Your task to perform on an android device: clear history in the chrome app Image 0: 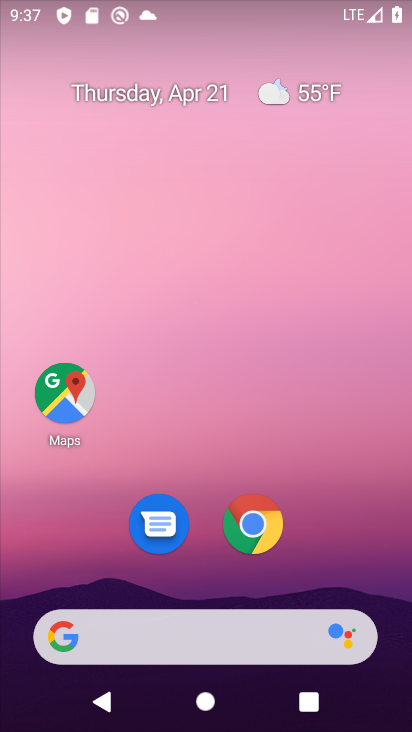
Step 0: click (255, 529)
Your task to perform on an android device: clear history in the chrome app Image 1: 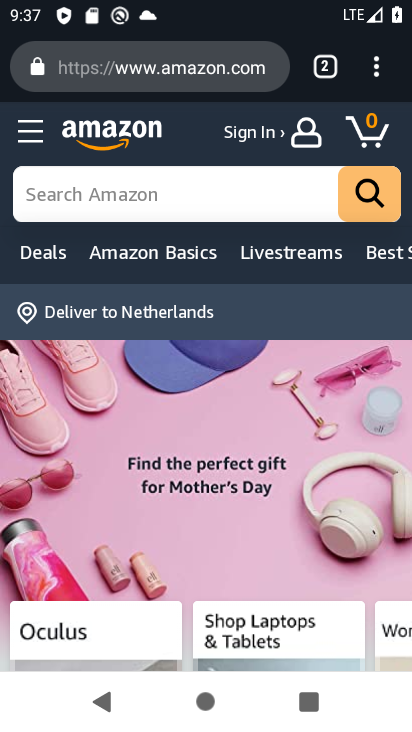
Step 1: click (372, 69)
Your task to perform on an android device: clear history in the chrome app Image 2: 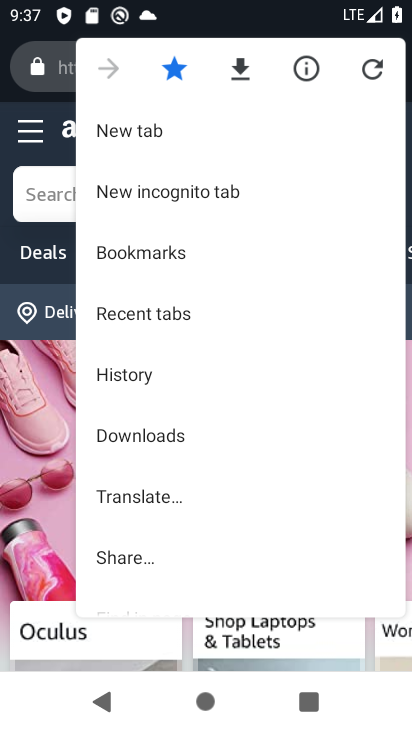
Step 2: click (176, 373)
Your task to perform on an android device: clear history in the chrome app Image 3: 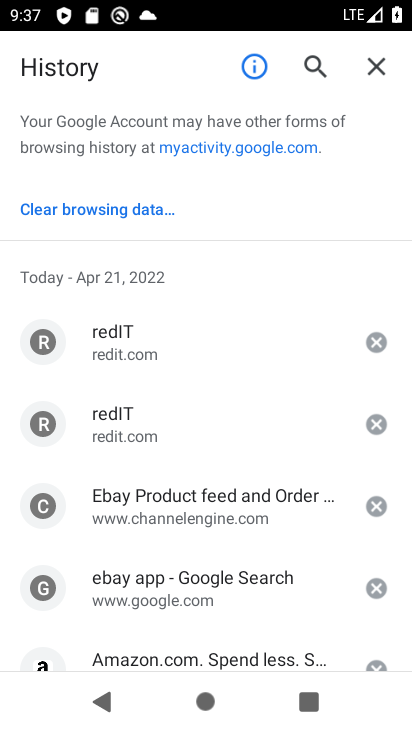
Step 3: click (128, 202)
Your task to perform on an android device: clear history in the chrome app Image 4: 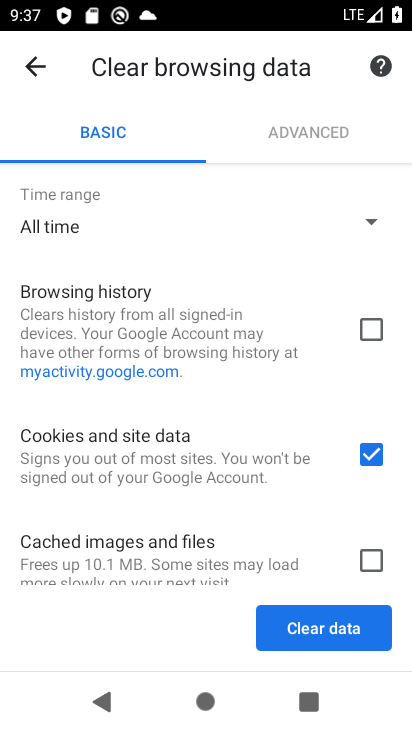
Step 4: click (364, 322)
Your task to perform on an android device: clear history in the chrome app Image 5: 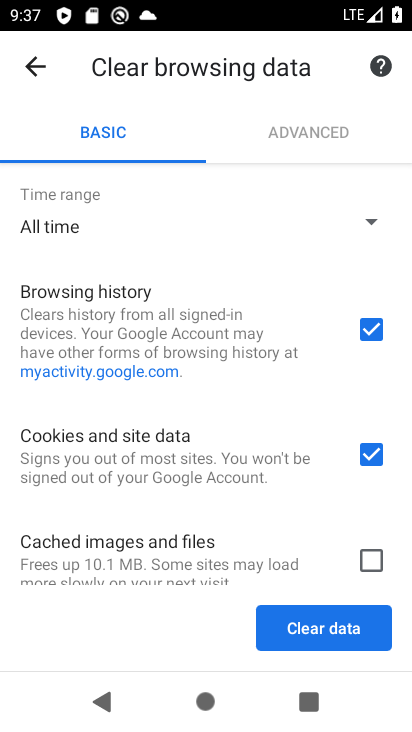
Step 5: click (370, 446)
Your task to perform on an android device: clear history in the chrome app Image 6: 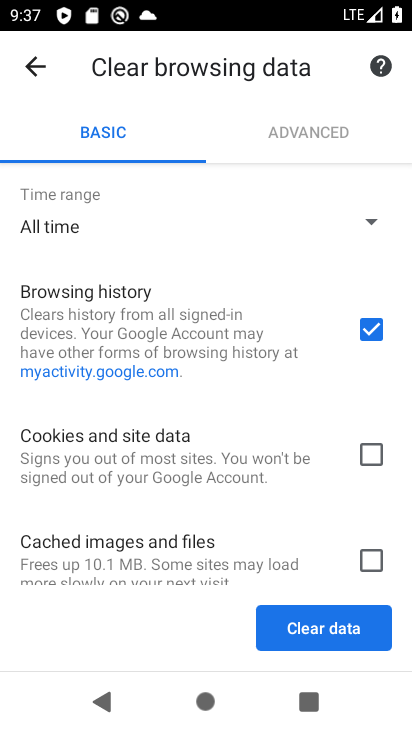
Step 6: click (347, 629)
Your task to perform on an android device: clear history in the chrome app Image 7: 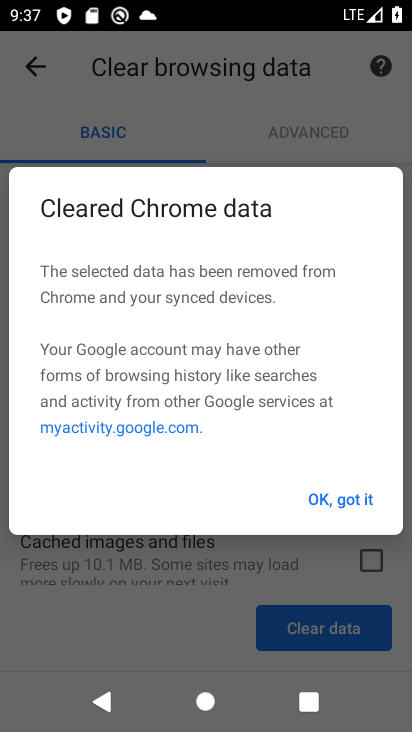
Step 7: click (360, 492)
Your task to perform on an android device: clear history in the chrome app Image 8: 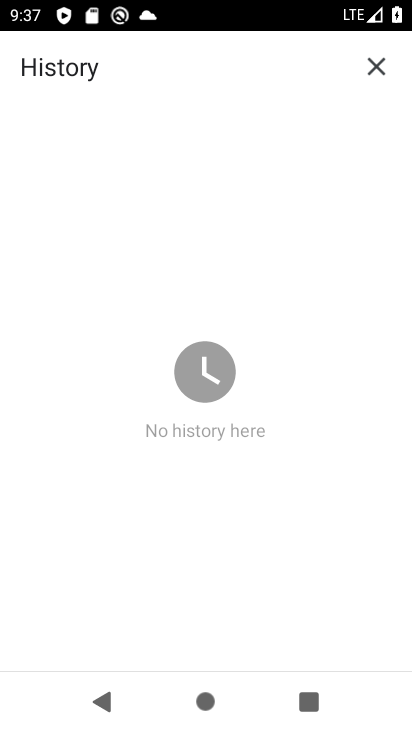
Step 8: task complete